Your task to perform on an android device: open sync settings in chrome Image 0: 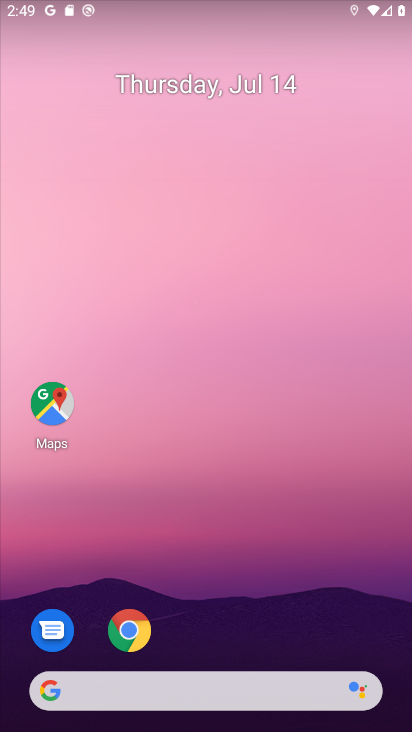
Step 0: drag from (264, 661) to (94, 253)
Your task to perform on an android device: open sync settings in chrome Image 1: 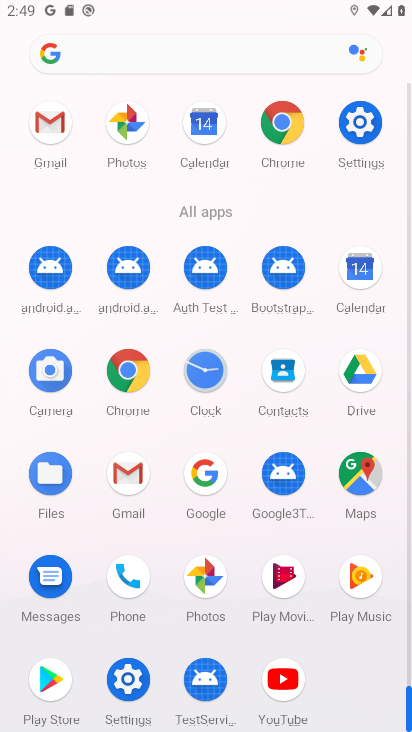
Step 1: click (291, 112)
Your task to perform on an android device: open sync settings in chrome Image 2: 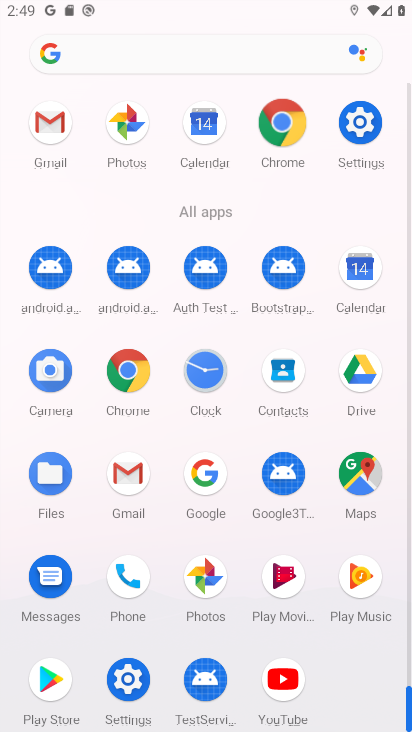
Step 2: click (280, 129)
Your task to perform on an android device: open sync settings in chrome Image 3: 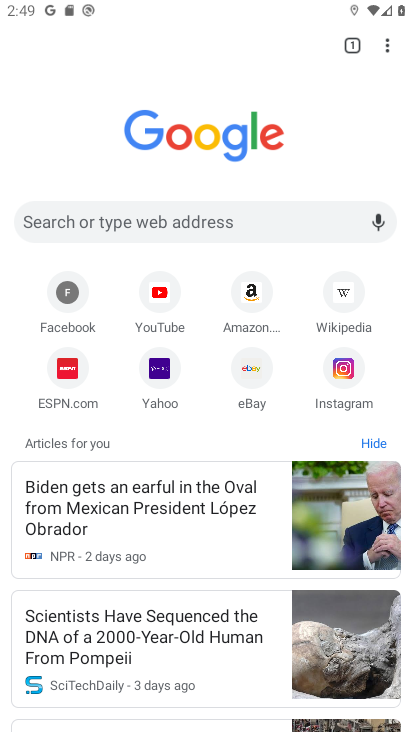
Step 3: drag from (384, 42) to (209, 380)
Your task to perform on an android device: open sync settings in chrome Image 4: 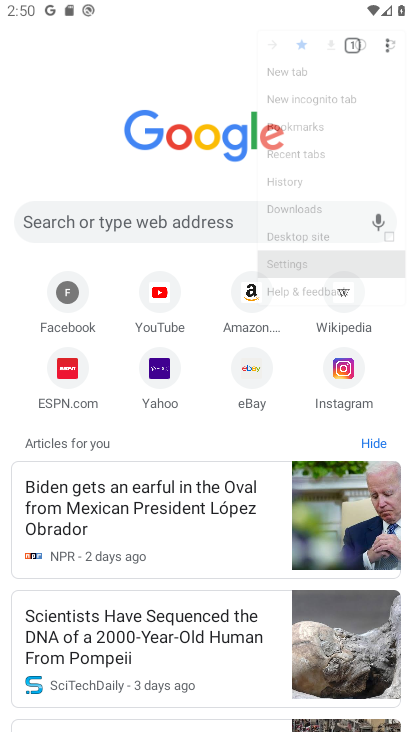
Step 4: click (210, 381)
Your task to perform on an android device: open sync settings in chrome Image 5: 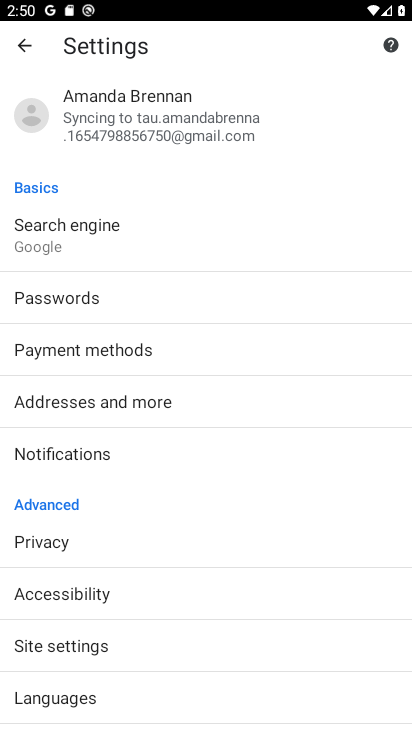
Step 5: drag from (76, 412) to (32, 166)
Your task to perform on an android device: open sync settings in chrome Image 6: 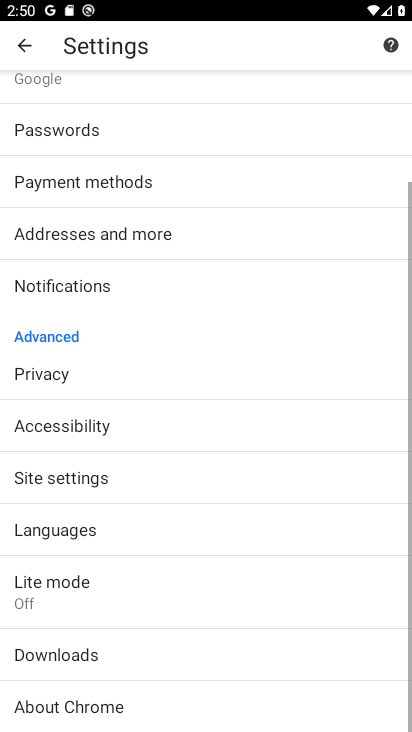
Step 6: drag from (118, 476) to (77, 144)
Your task to perform on an android device: open sync settings in chrome Image 7: 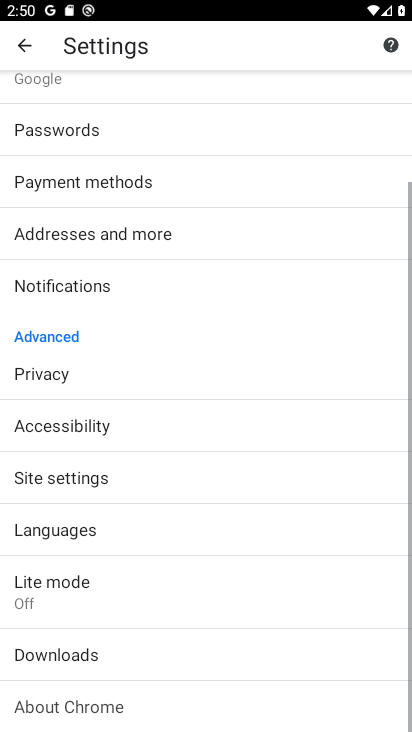
Step 7: drag from (122, 385) to (162, 3)
Your task to perform on an android device: open sync settings in chrome Image 8: 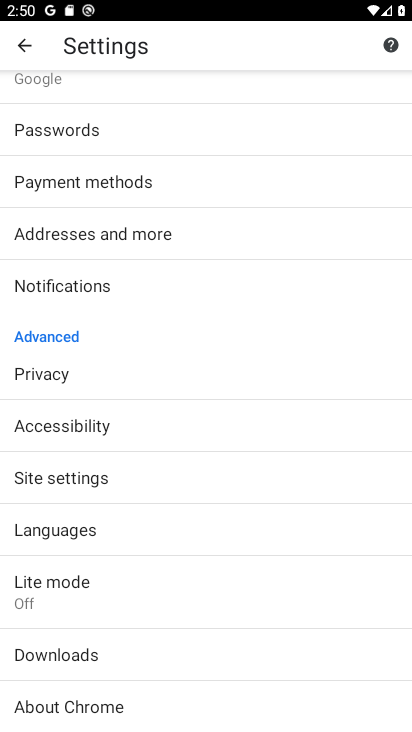
Step 8: click (50, 473)
Your task to perform on an android device: open sync settings in chrome Image 9: 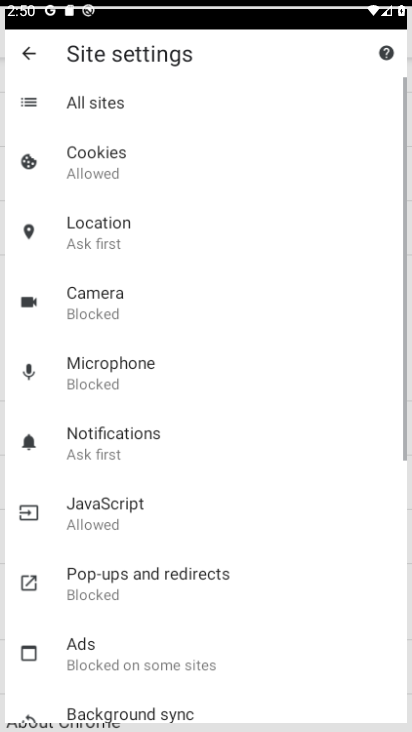
Step 9: click (47, 472)
Your task to perform on an android device: open sync settings in chrome Image 10: 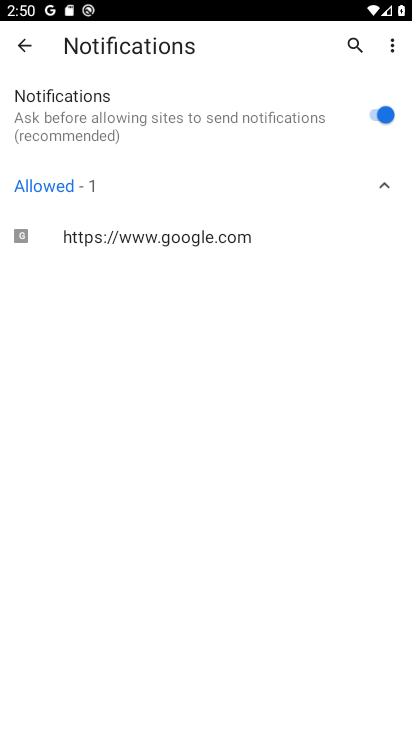
Step 10: click (22, 50)
Your task to perform on an android device: open sync settings in chrome Image 11: 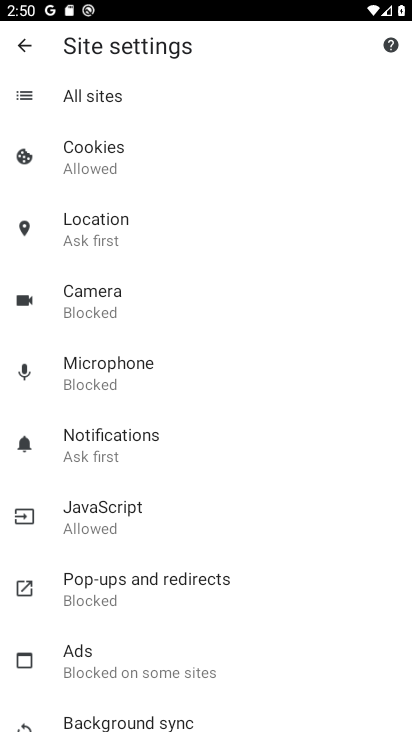
Step 11: drag from (103, 601) to (116, 254)
Your task to perform on an android device: open sync settings in chrome Image 12: 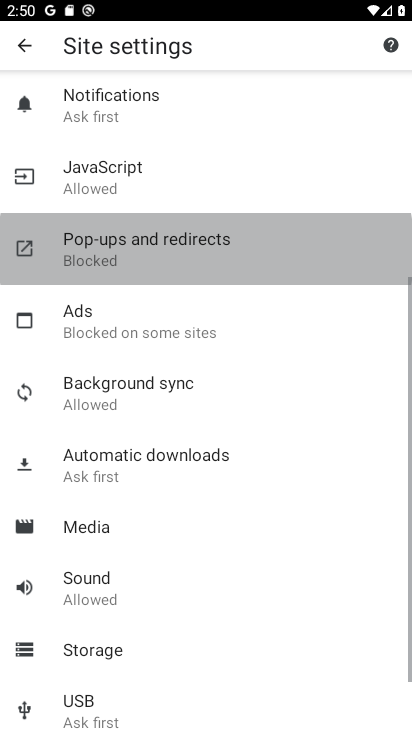
Step 12: drag from (146, 520) to (81, 124)
Your task to perform on an android device: open sync settings in chrome Image 13: 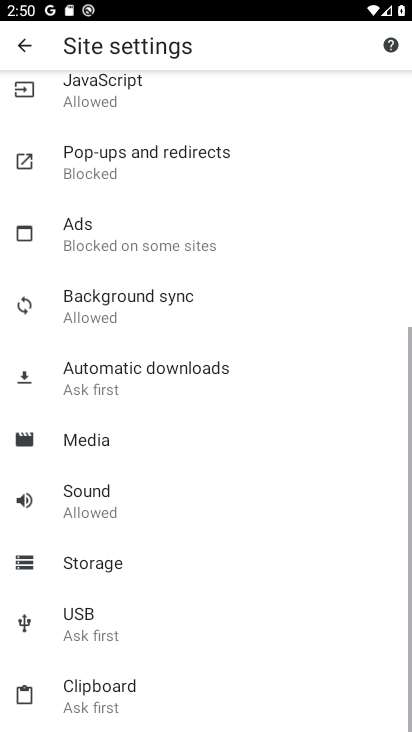
Step 13: click (106, 305)
Your task to perform on an android device: open sync settings in chrome Image 14: 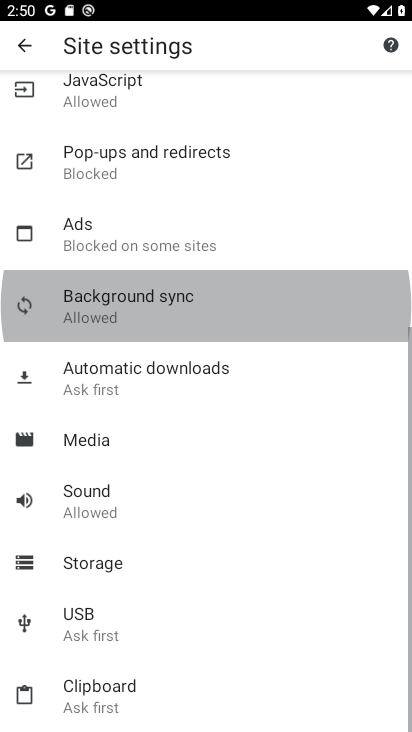
Step 14: click (106, 305)
Your task to perform on an android device: open sync settings in chrome Image 15: 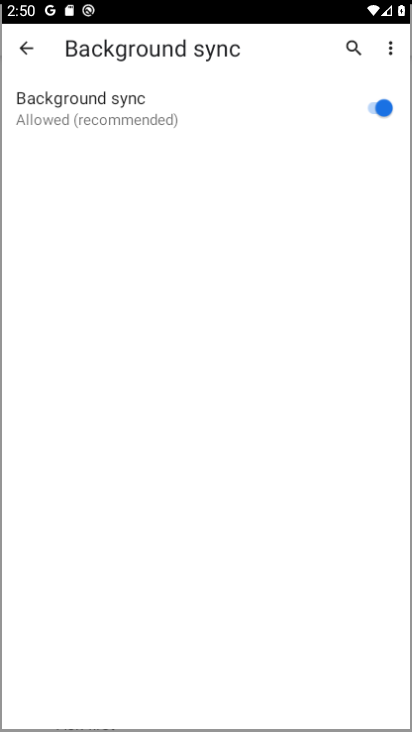
Step 15: click (106, 305)
Your task to perform on an android device: open sync settings in chrome Image 16: 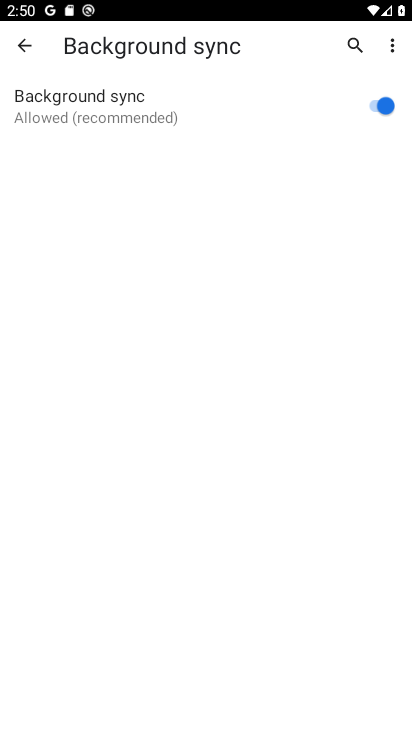
Step 16: task complete